Your task to perform on an android device: move a message to another label in the gmail app Image 0: 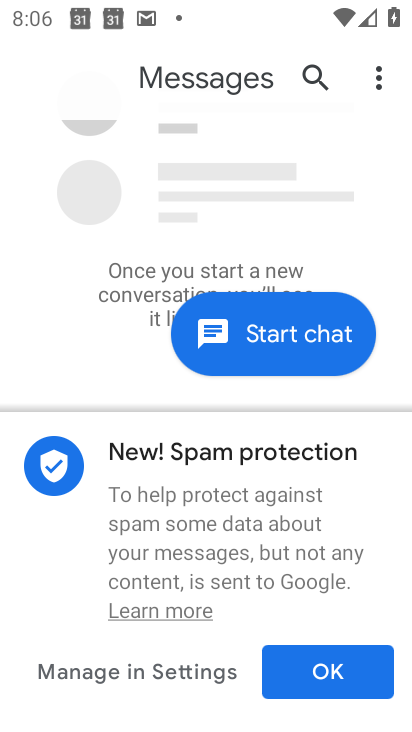
Step 0: press home button
Your task to perform on an android device: move a message to another label in the gmail app Image 1: 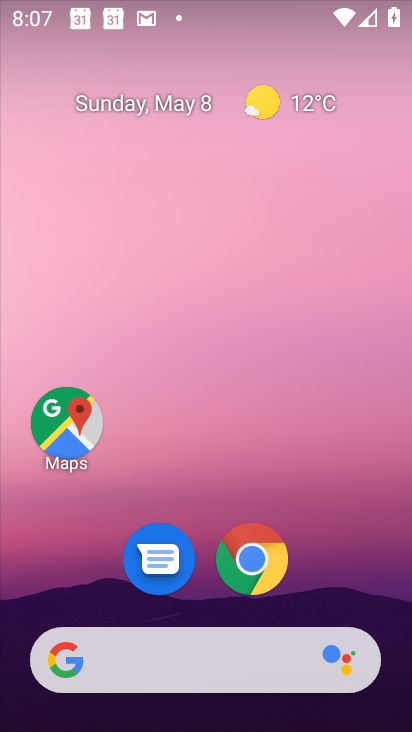
Step 1: drag from (362, 613) to (365, 10)
Your task to perform on an android device: move a message to another label in the gmail app Image 2: 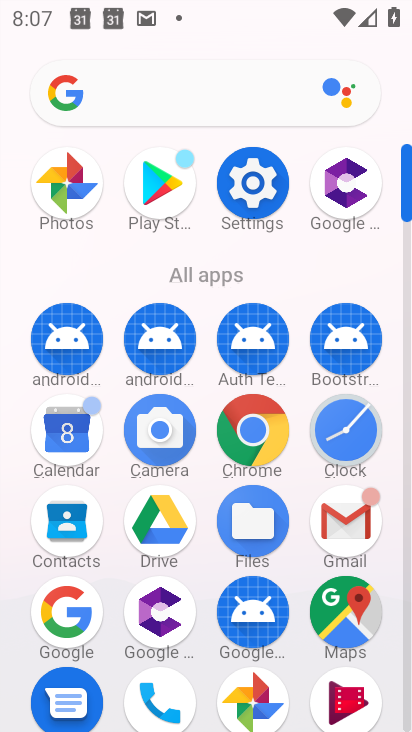
Step 2: click (341, 527)
Your task to perform on an android device: move a message to another label in the gmail app Image 3: 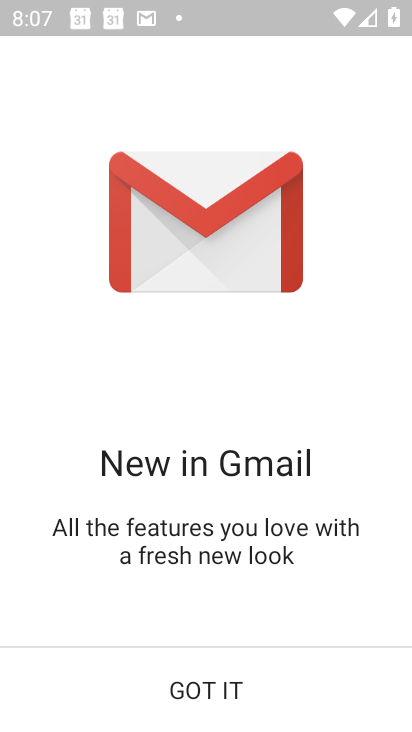
Step 3: click (201, 680)
Your task to perform on an android device: move a message to another label in the gmail app Image 4: 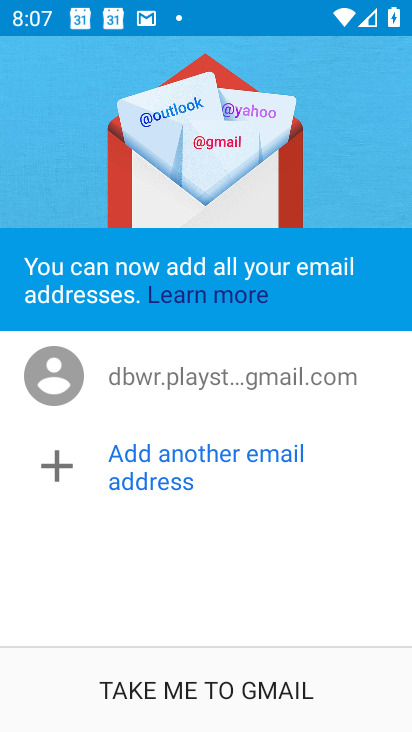
Step 4: click (186, 691)
Your task to perform on an android device: move a message to another label in the gmail app Image 5: 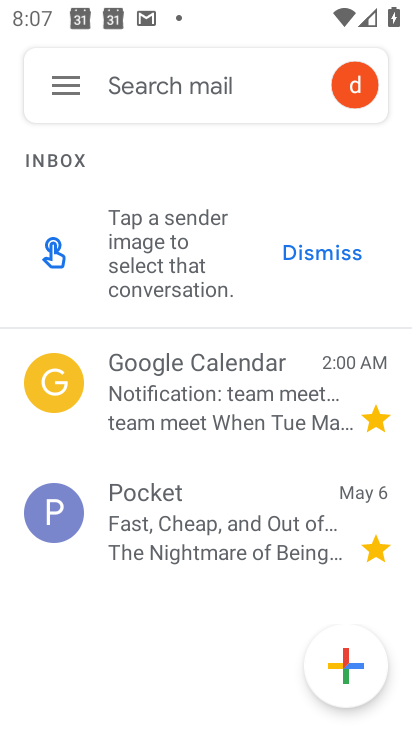
Step 5: click (65, 91)
Your task to perform on an android device: move a message to another label in the gmail app Image 6: 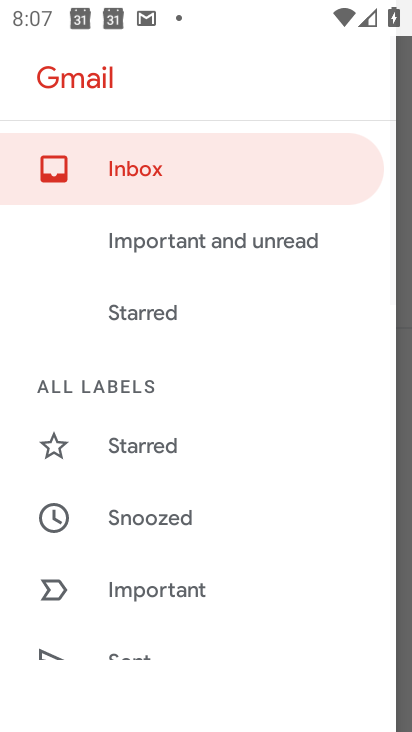
Step 6: drag from (227, 554) to (224, 280)
Your task to perform on an android device: move a message to another label in the gmail app Image 7: 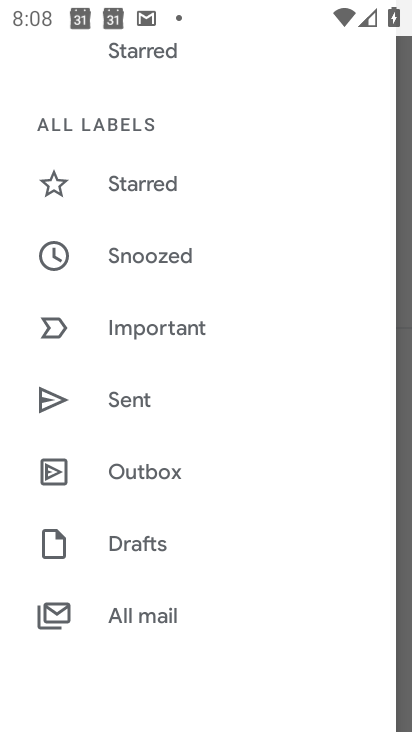
Step 7: click (148, 619)
Your task to perform on an android device: move a message to another label in the gmail app Image 8: 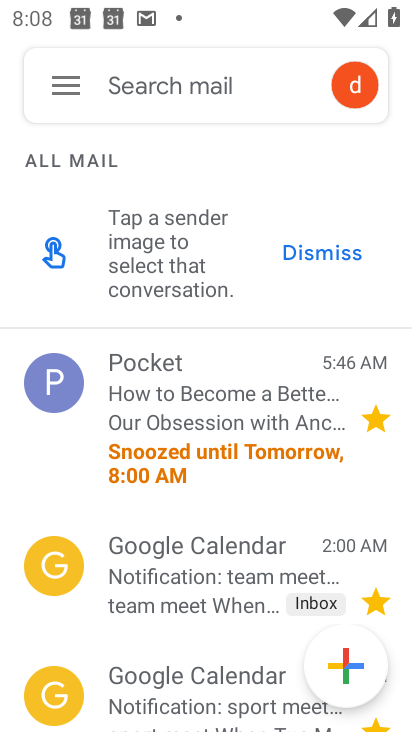
Step 8: click (217, 419)
Your task to perform on an android device: move a message to another label in the gmail app Image 9: 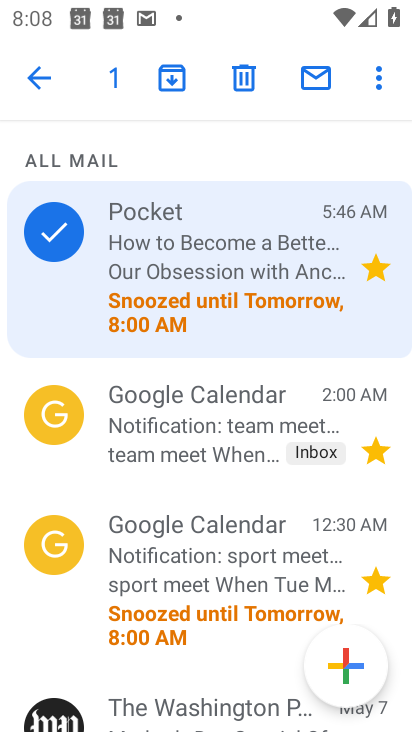
Step 9: click (378, 68)
Your task to perform on an android device: move a message to another label in the gmail app Image 10: 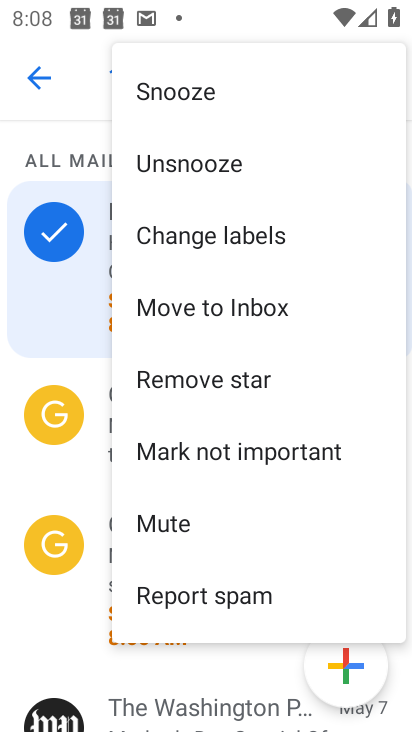
Step 10: click (194, 243)
Your task to perform on an android device: move a message to another label in the gmail app Image 11: 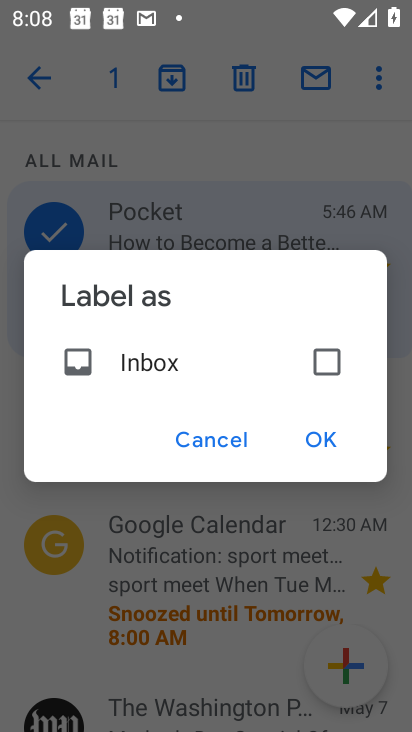
Step 11: click (330, 345)
Your task to perform on an android device: move a message to another label in the gmail app Image 12: 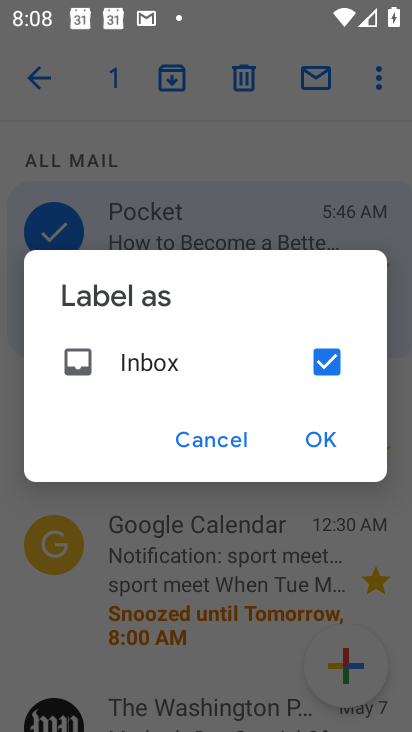
Step 12: click (316, 441)
Your task to perform on an android device: move a message to another label in the gmail app Image 13: 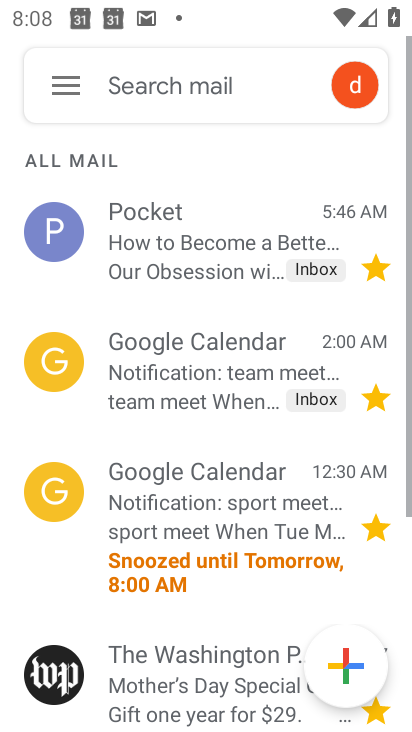
Step 13: task complete